Your task to perform on an android device: make emails show in primary in the gmail app Image 0: 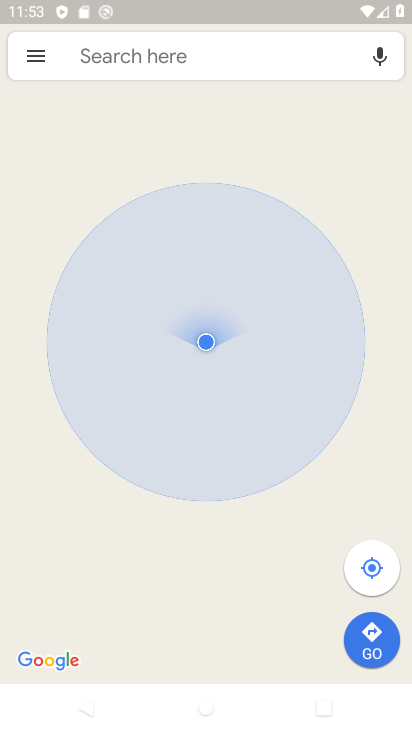
Step 0: press home button
Your task to perform on an android device: make emails show in primary in the gmail app Image 1: 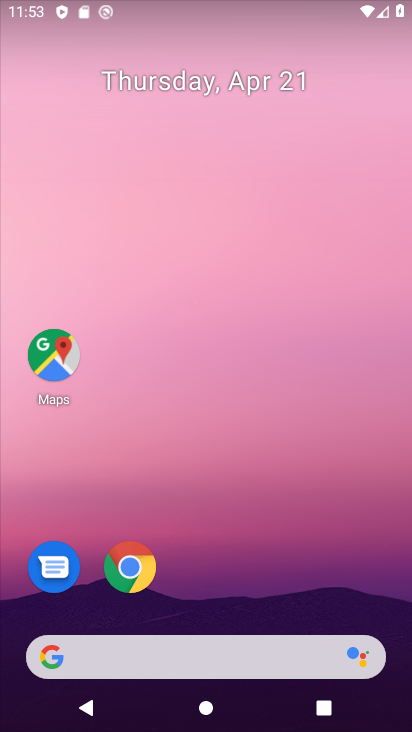
Step 1: drag from (252, 446) to (260, 199)
Your task to perform on an android device: make emails show in primary in the gmail app Image 2: 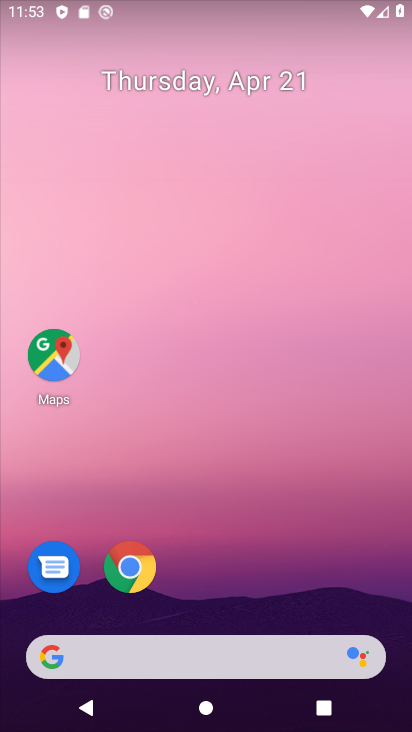
Step 2: drag from (269, 593) to (282, 149)
Your task to perform on an android device: make emails show in primary in the gmail app Image 3: 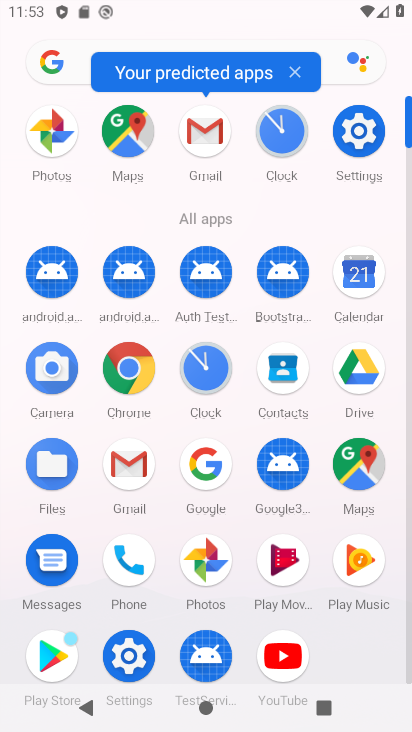
Step 3: click (204, 147)
Your task to perform on an android device: make emails show in primary in the gmail app Image 4: 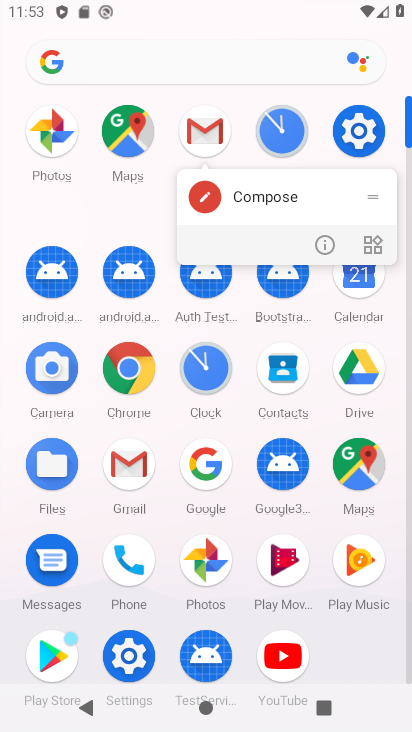
Step 4: click (199, 133)
Your task to perform on an android device: make emails show in primary in the gmail app Image 5: 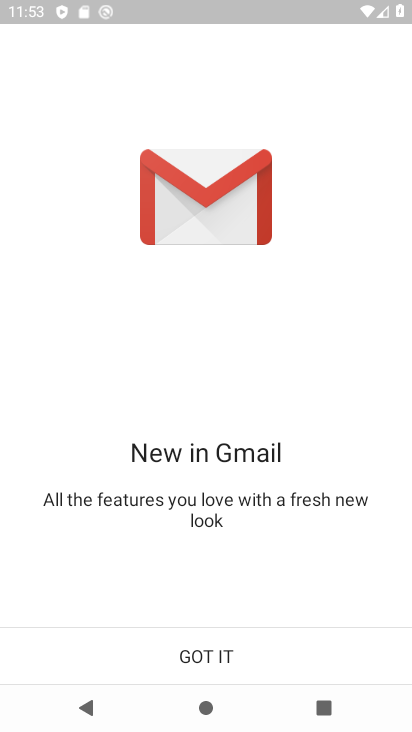
Step 5: click (222, 656)
Your task to perform on an android device: make emails show in primary in the gmail app Image 6: 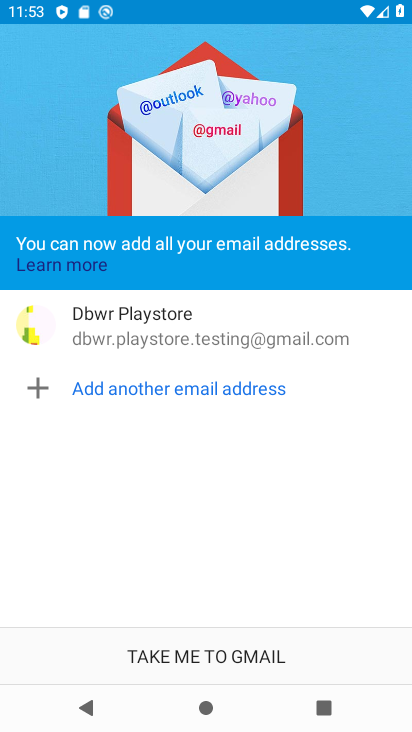
Step 6: click (224, 659)
Your task to perform on an android device: make emails show in primary in the gmail app Image 7: 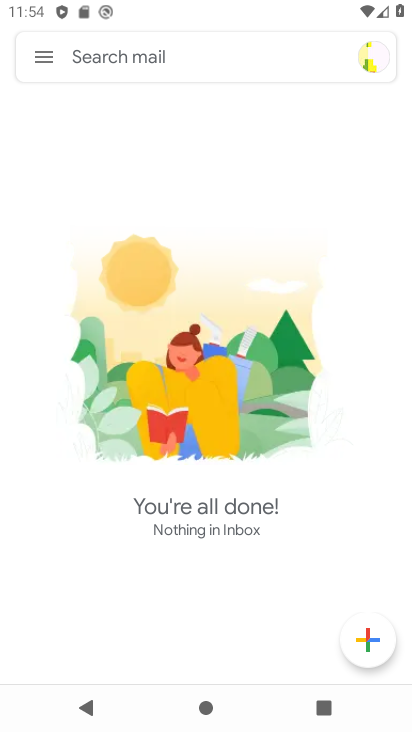
Step 7: drag from (246, 548) to (289, 301)
Your task to perform on an android device: make emails show in primary in the gmail app Image 8: 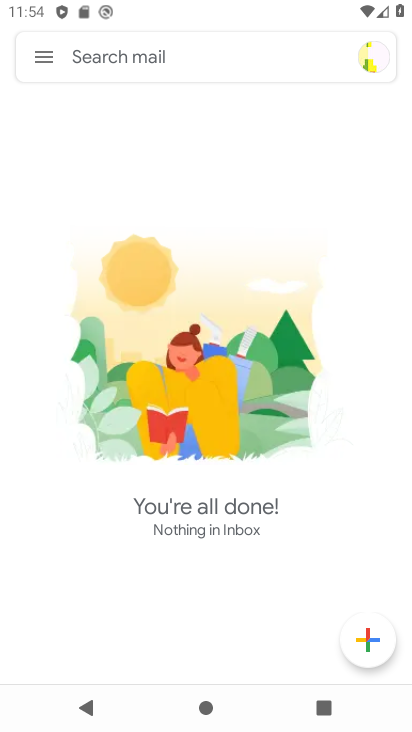
Step 8: click (40, 54)
Your task to perform on an android device: make emails show in primary in the gmail app Image 9: 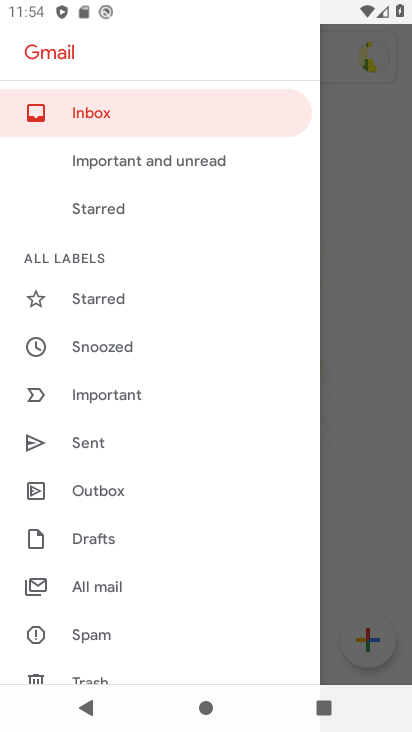
Step 9: drag from (133, 633) to (164, 123)
Your task to perform on an android device: make emails show in primary in the gmail app Image 10: 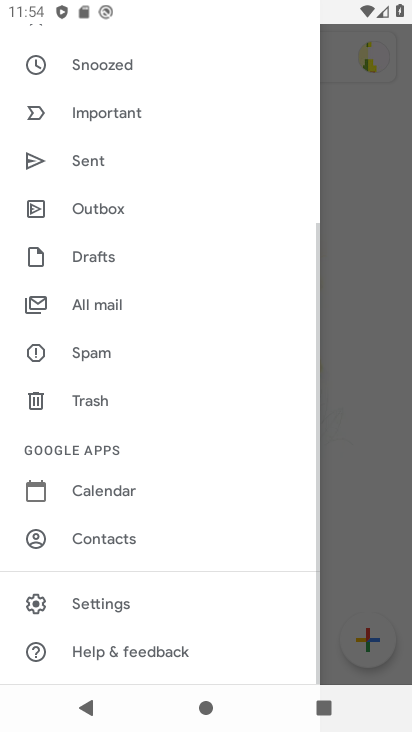
Step 10: click (110, 598)
Your task to perform on an android device: make emails show in primary in the gmail app Image 11: 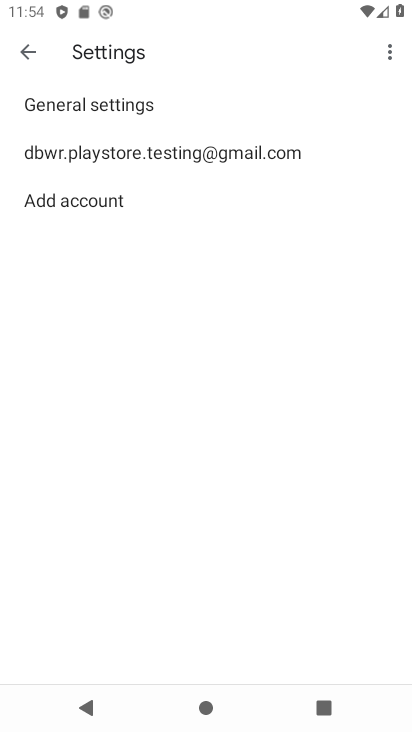
Step 11: click (75, 157)
Your task to perform on an android device: make emails show in primary in the gmail app Image 12: 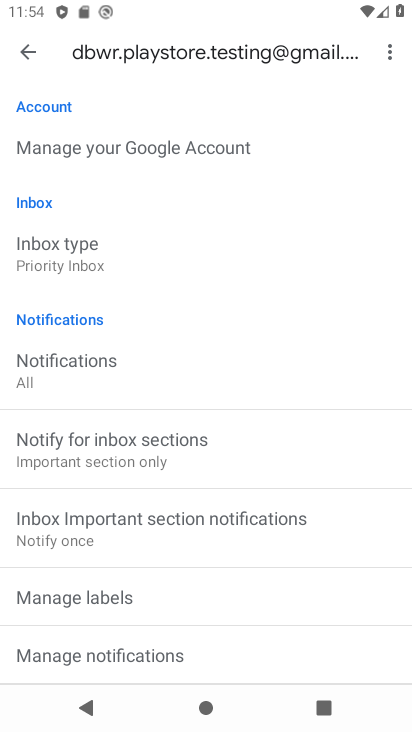
Step 12: click (85, 257)
Your task to perform on an android device: make emails show in primary in the gmail app Image 13: 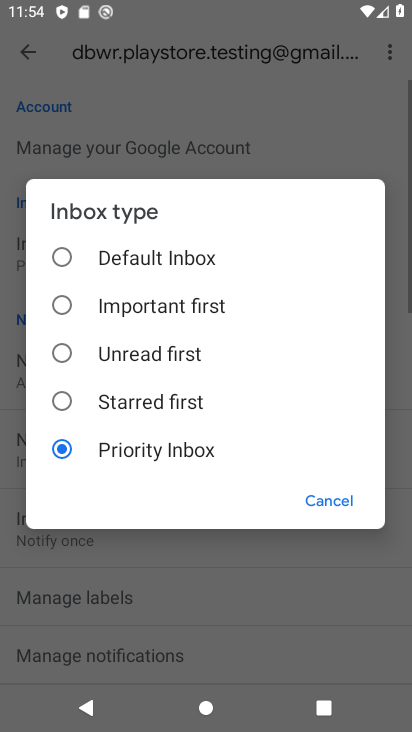
Step 13: click (141, 258)
Your task to perform on an android device: make emails show in primary in the gmail app Image 14: 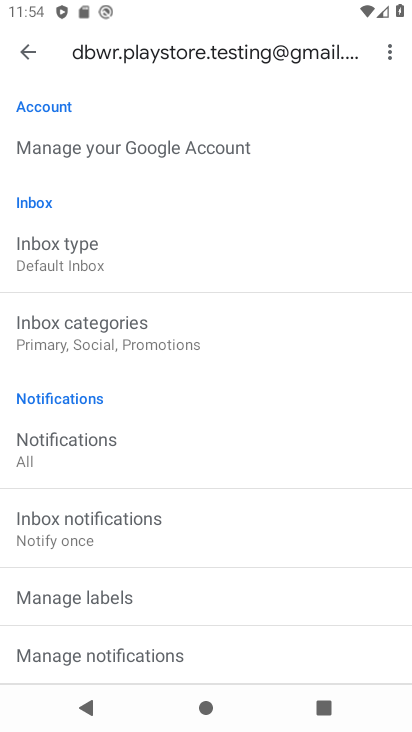
Step 14: press back button
Your task to perform on an android device: make emails show in primary in the gmail app Image 15: 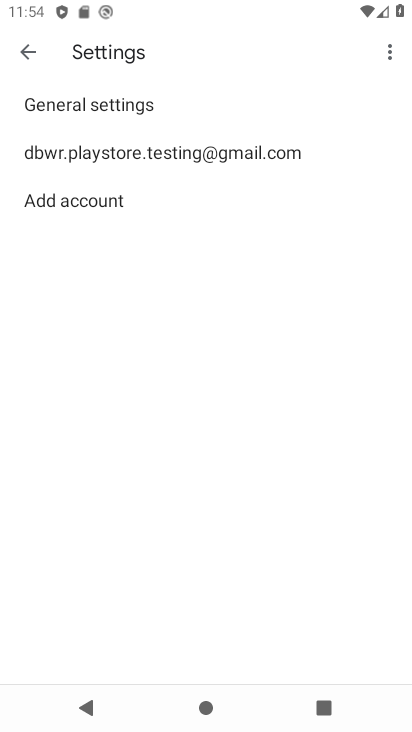
Step 15: press back button
Your task to perform on an android device: make emails show in primary in the gmail app Image 16: 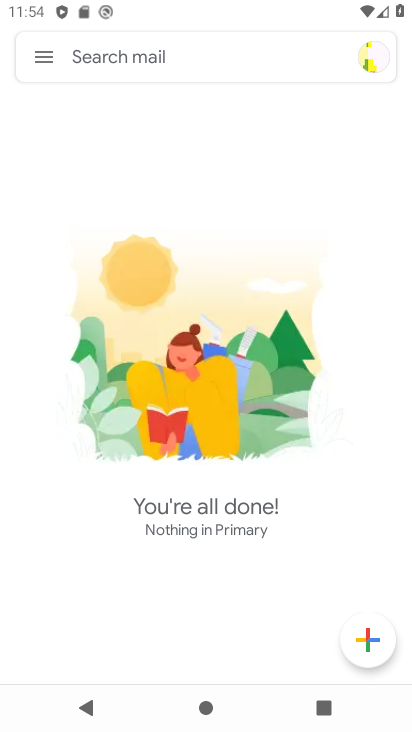
Step 16: click (48, 56)
Your task to perform on an android device: make emails show in primary in the gmail app Image 17: 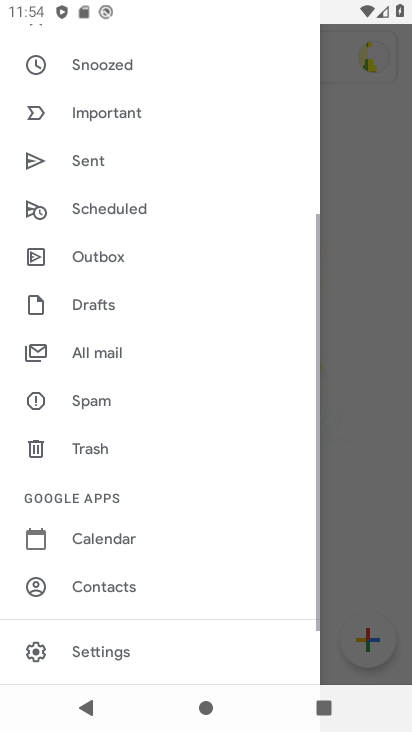
Step 17: drag from (144, 112) to (140, 547)
Your task to perform on an android device: make emails show in primary in the gmail app Image 18: 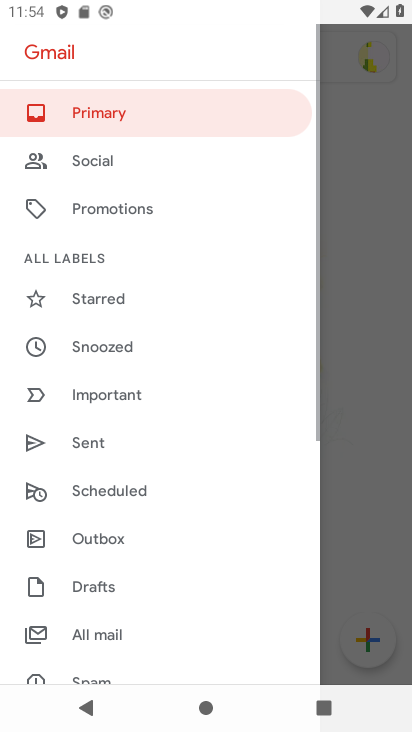
Step 18: click (128, 113)
Your task to perform on an android device: make emails show in primary in the gmail app Image 19: 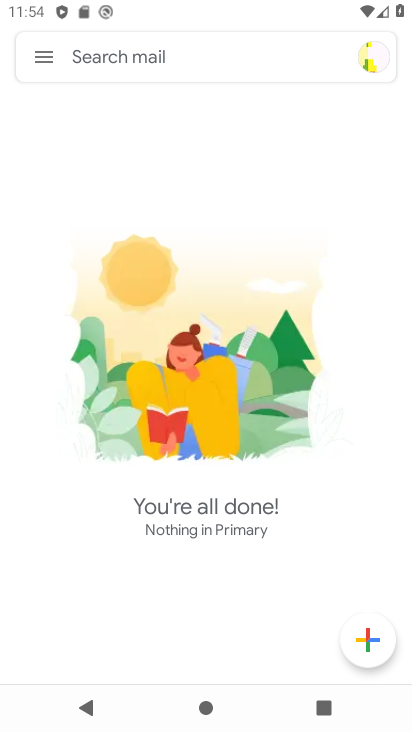
Step 19: task complete